Your task to perform on an android device: turn on bluetooth scan Image 0: 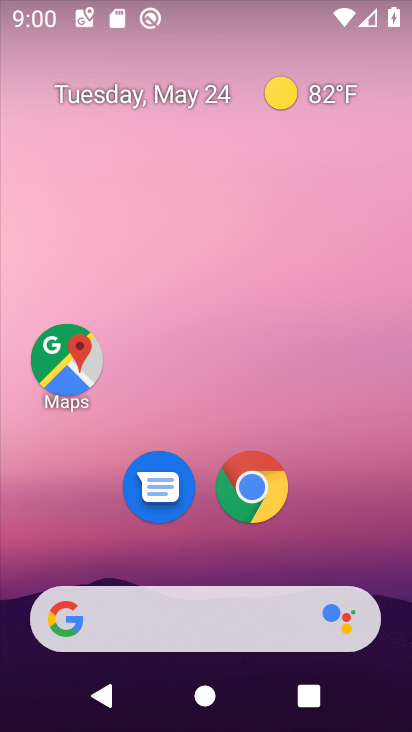
Step 0: drag from (369, 502) to (319, 101)
Your task to perform on an android device: turn on bluetooth scan Image 1: 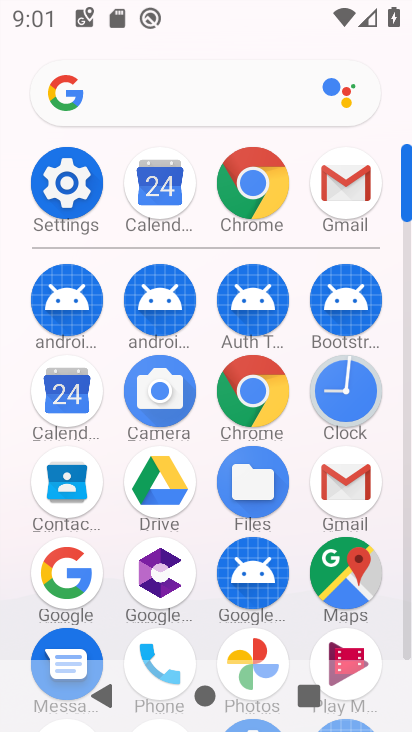
Step 1: click (41, 204)
Your task to perform on an android device: turn on bluetooth scan Image 2: 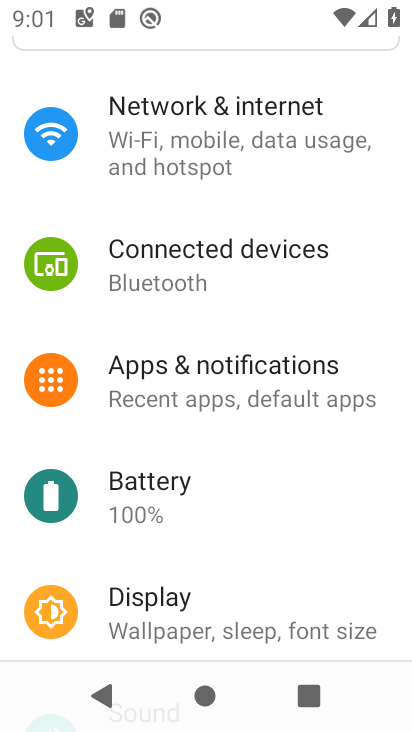
Step 2: drag from (284, 491) to (281, 182)
Your task to perform on an android device: turn on bluetooth scan Image 3: 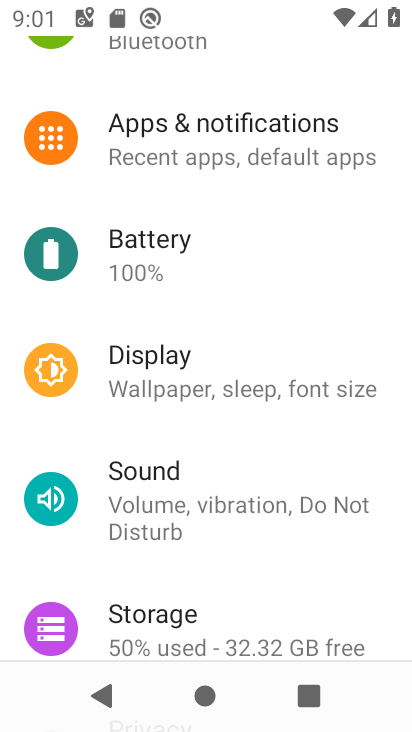
Step 3: drag from (274, 553) to (262, 266)
Your task to perform on an android device: turn on bluetooth scan Image 4: 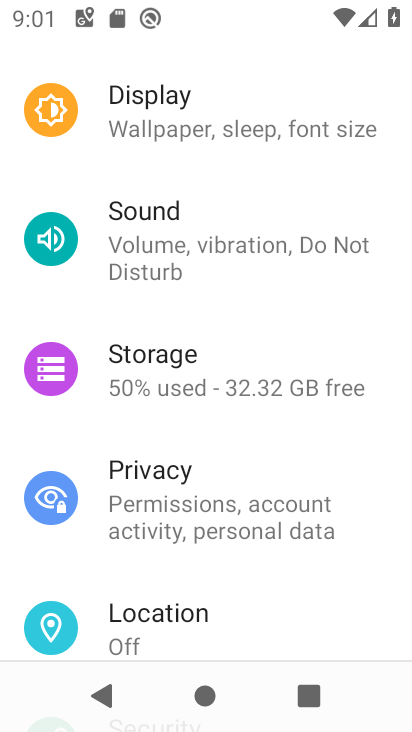
Step 4: drag from (270, 489) to (269, 260)
Your task to perform on an android device: turn on bluetooth scan Image 5: 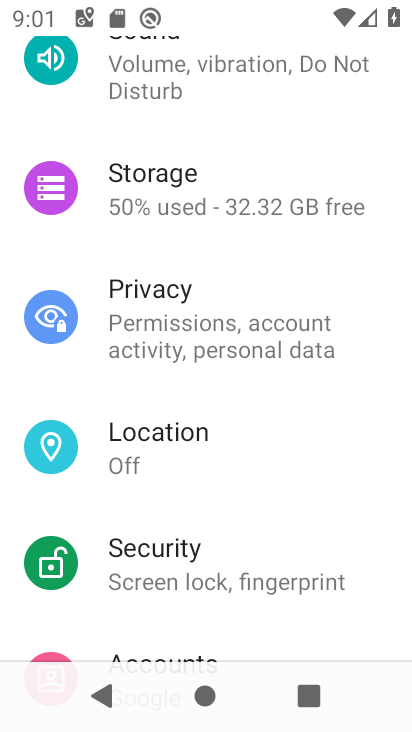
Step 5: click (237, 448)
Your task to perform on an android device: turn on bluetooth scan Image 6: 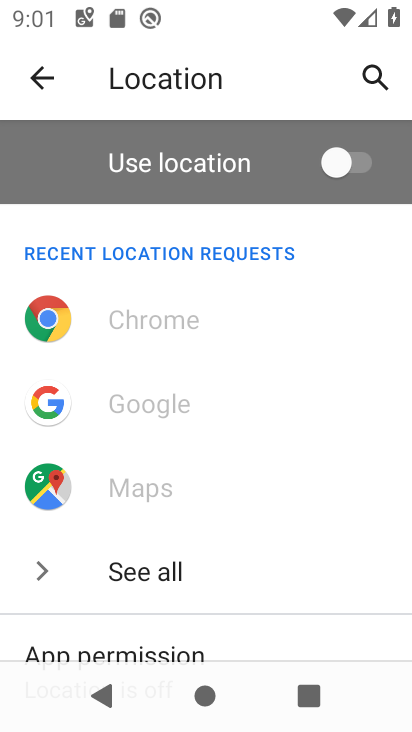
Step 6: drag from (300, 631) to (296, 381)
Your task to perform on an android device: turn on bluetooth scan Image 7: 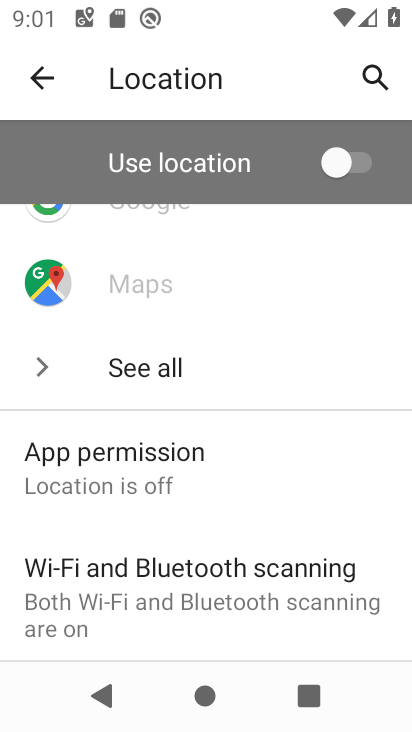
Step 7: click (212, 572)
Your task to perform on an android device: turn on bluetooth scan Image 8: 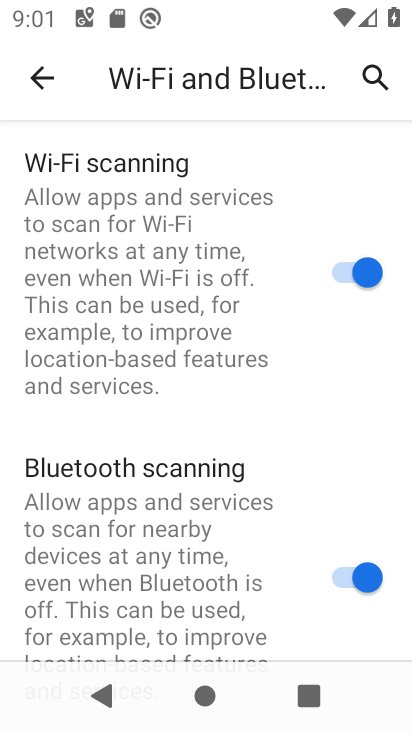
Step 8: task complete